Your task to perform on an android device: Open Chrome and go to the settings page Image 0: 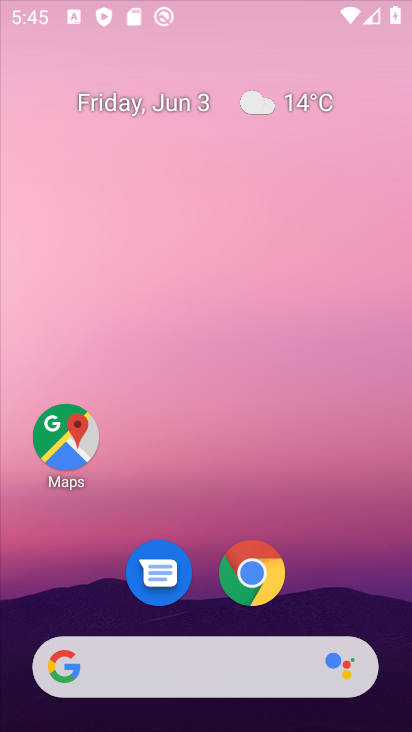
Step 0: drag from (228, 266) to (293, 8)
Your task to perform on an android device: Open Chrome and go to the settings page Image 1: 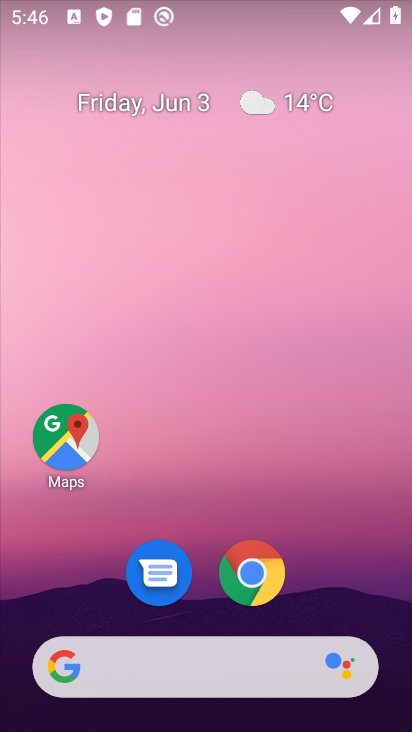
Step 1: drag from (260, 637) to (337, 0)
Your task to perform on an android device: Open Chrome and go to the settings page Image 2: 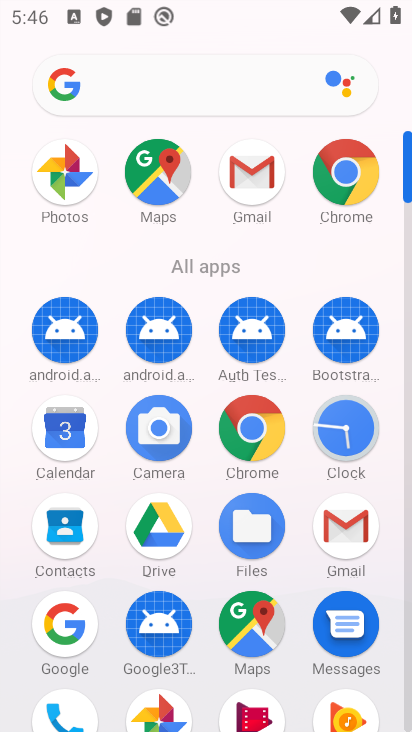
Step 2: click (252, 445)
Your task to perform on an android device: Open Chrome and go to the settings page Image 3: 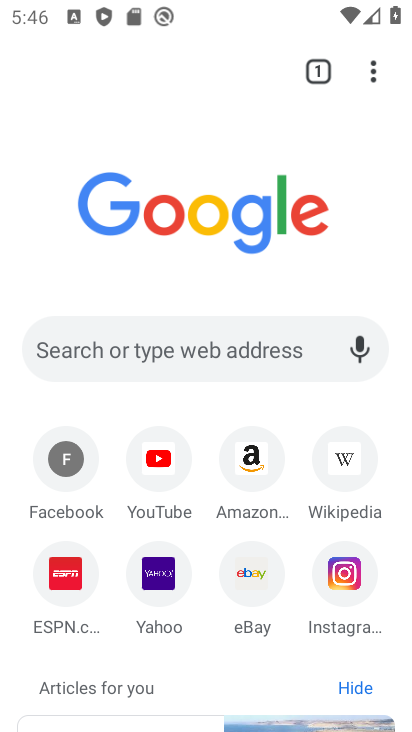
Step 3: click (376, 72)
Your task to perform on an android device: Open Chrome and go to the settings page Image 4: 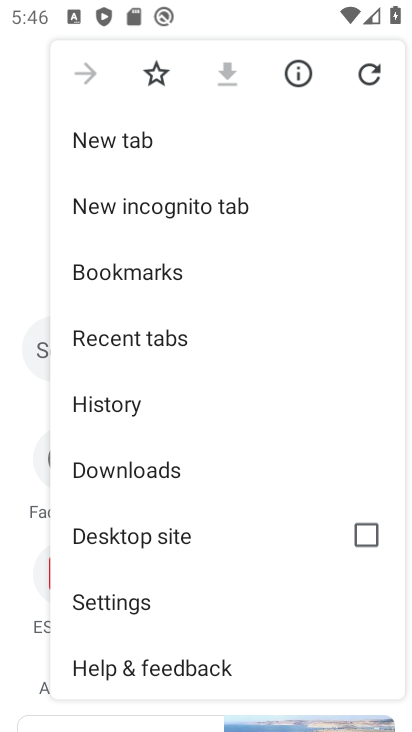
Step 4: click (200, 595)
Your task to perform on an android device: Open Chrome and go to the settings page Image 5: 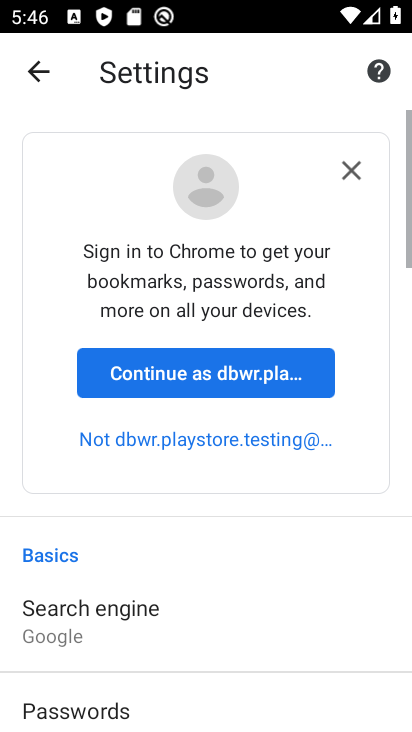
Step 5: task complete